Your task to perform on an android device: Toggle the flashlight Image 0: 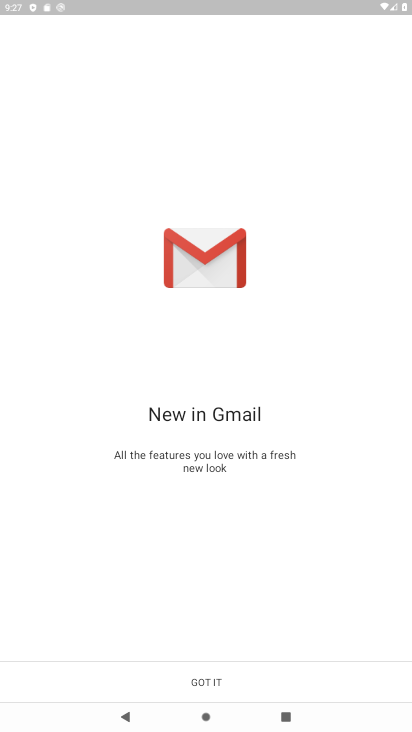
Step 0: press home button
Your task to perform on an android device: Toggle the flashlight Image 1: 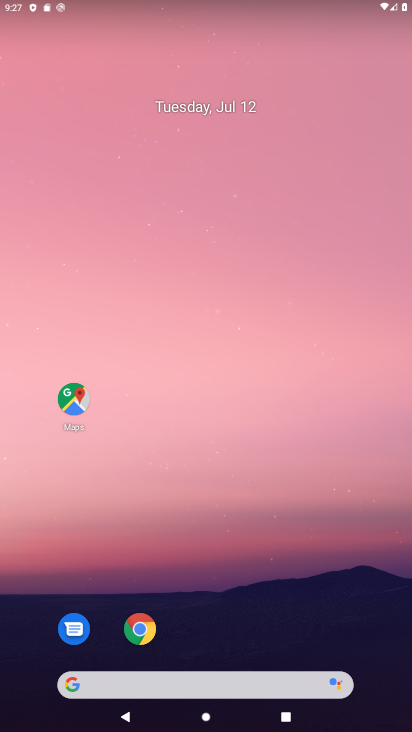
Step 1: drag from (243, 598) to (261, 27)
Your task to perform on an android device: Toggle the flashlight Image 2: 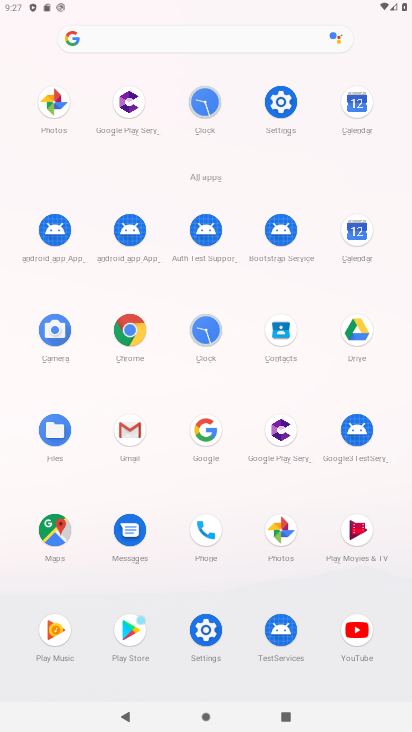
Step 2: click (280, 103)
Your task to perform on an android device: Toggle the flashlight Image 3: 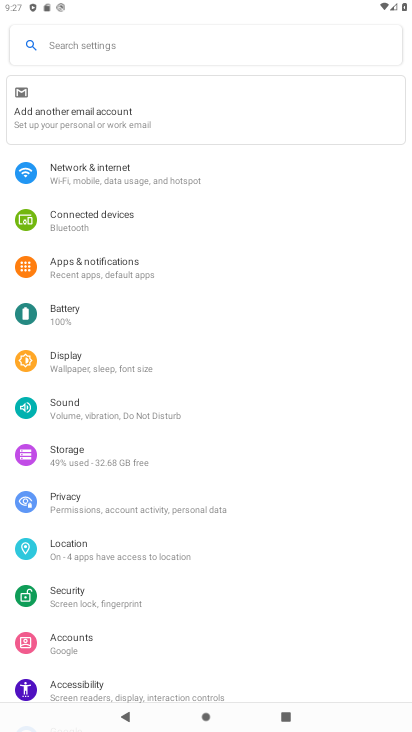
Step 3: task complete